Your task to perform on an android device: Go to Android settings Image 0: 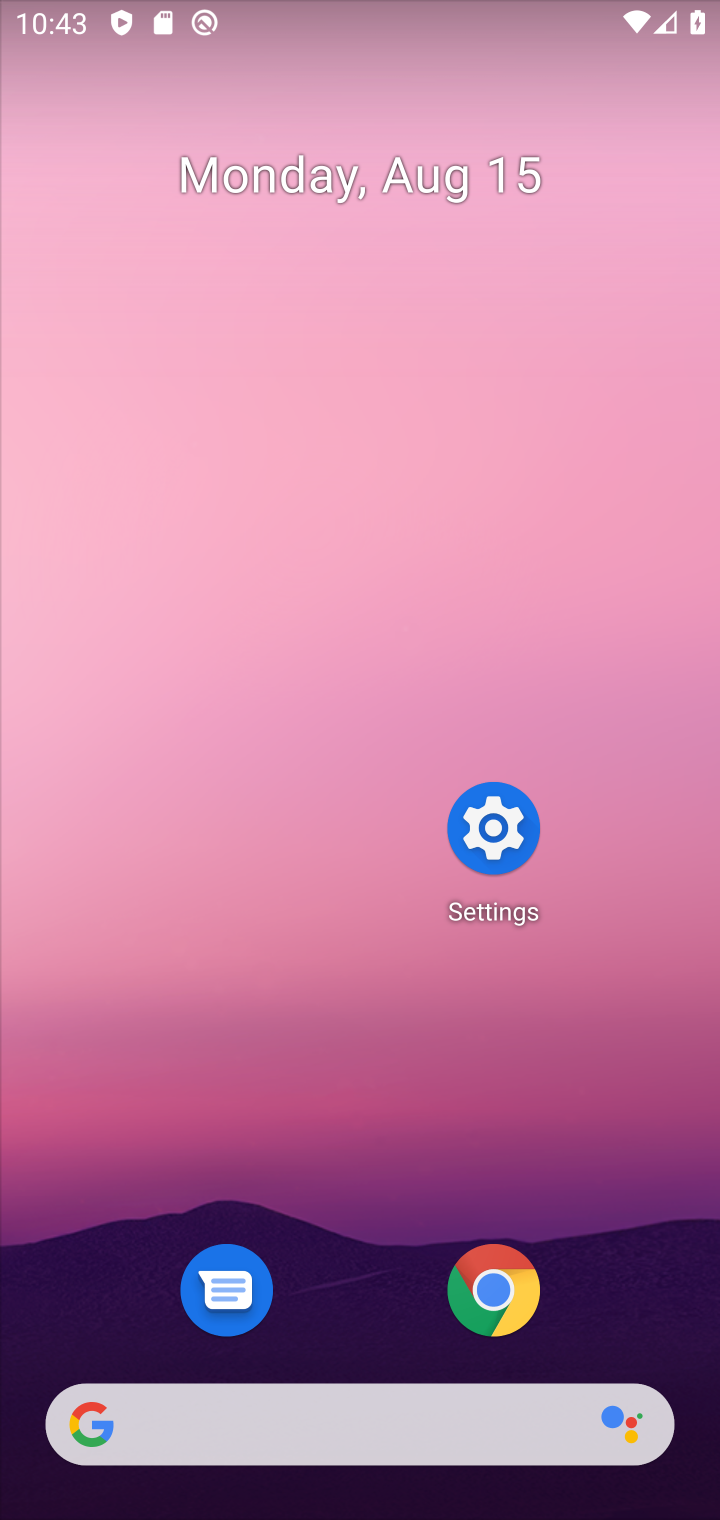
Step 0: click (495, 822)
Your task to perform on an android device: Go to Android settings Image 1: 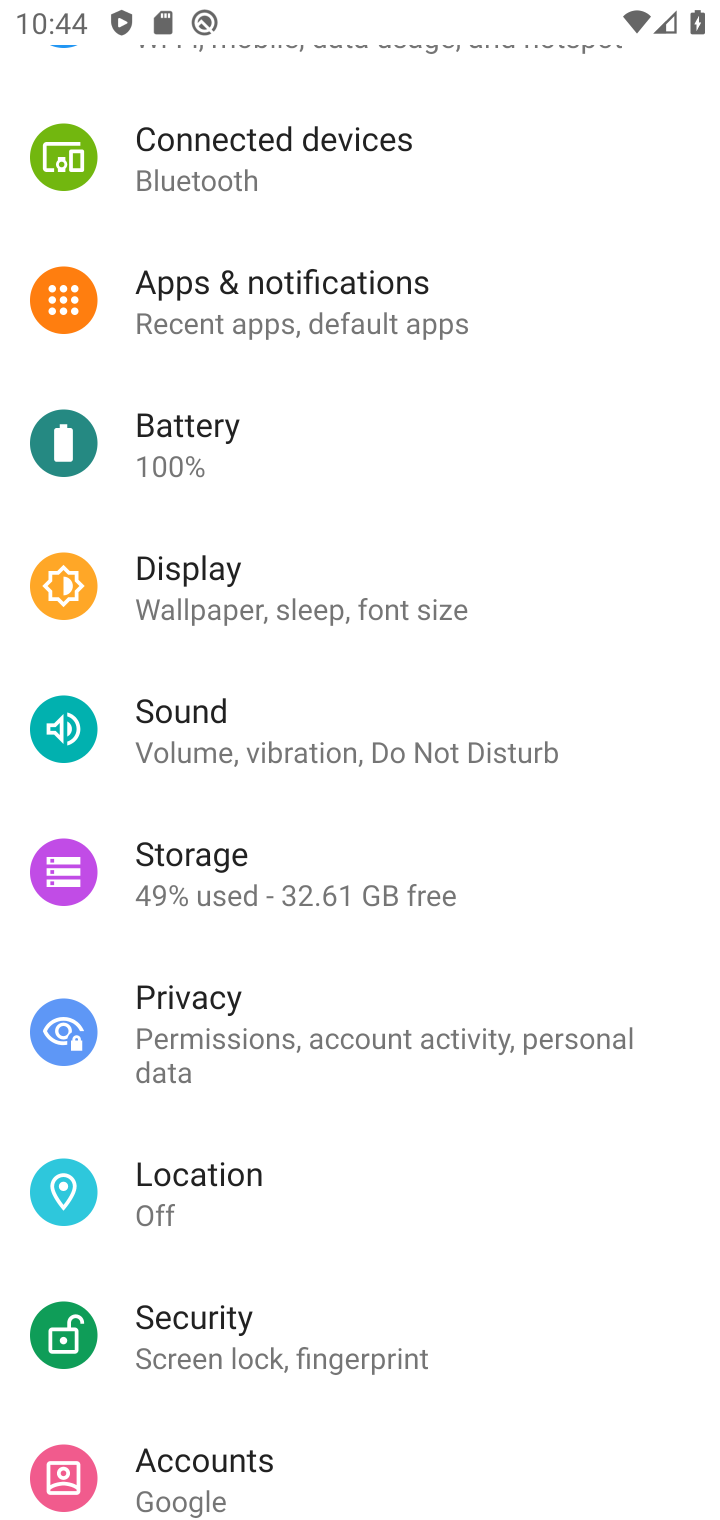
Step 1: task complete